Your task to perform on an android device: When is my next meeting? Image 0: 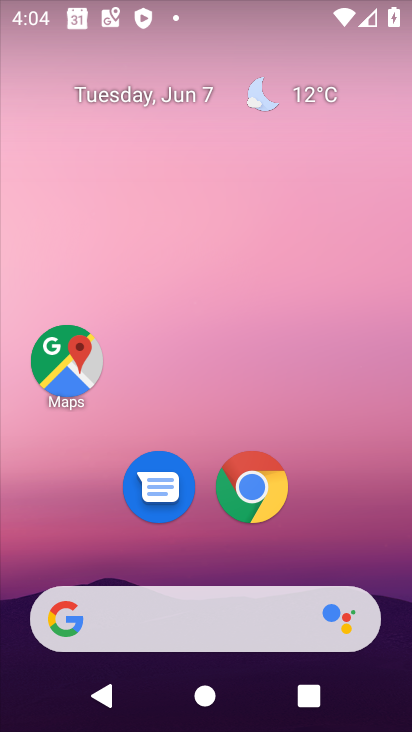
Step 0: drag from (239, 557) to (210, 48)
Your task to perform on an android device: When is my next meeting? Image 1: 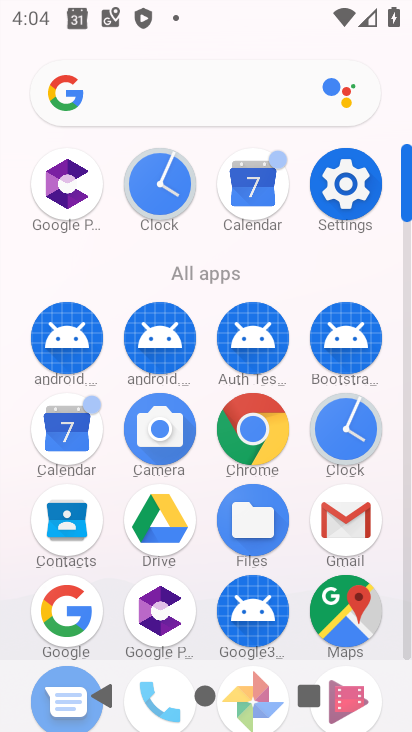
Step 1: click (71, 456)
Your task to perform on an android device: When is my next meeting? Image 2: 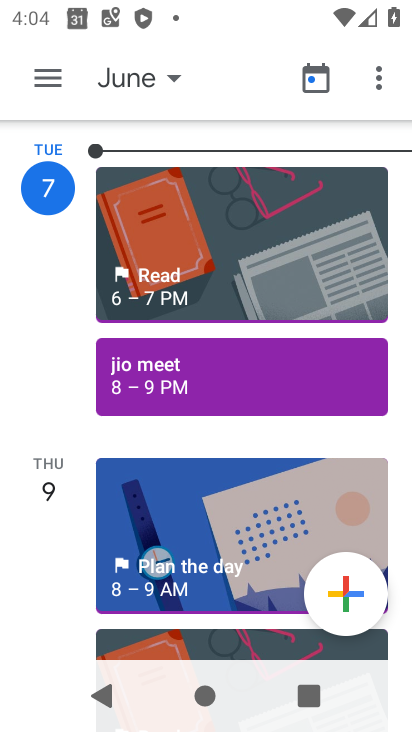
Step 2: task complete